Your task to perform on an android device: change the clock display to analog Image 0: 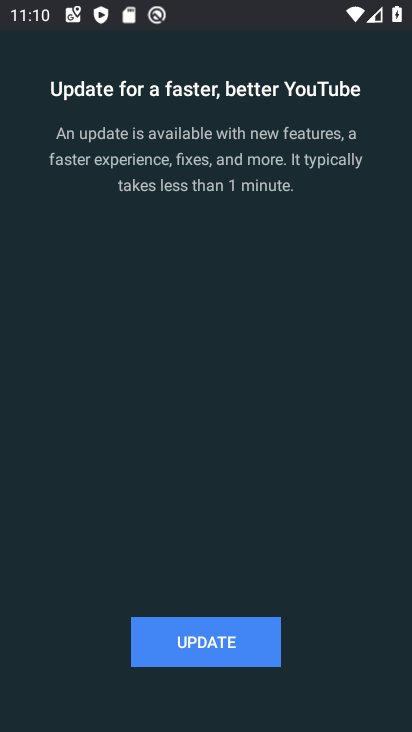
Step 0: press home button
Your task to perform on an android device: change the clock display to analog Image 1: 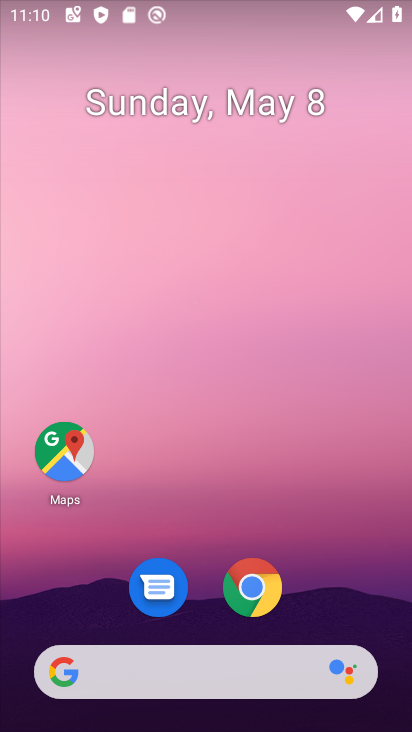
Step 1: drag from (344, 607) to (137, 242)
Your task to perform on an android device: change the clock display to analog Image 2: 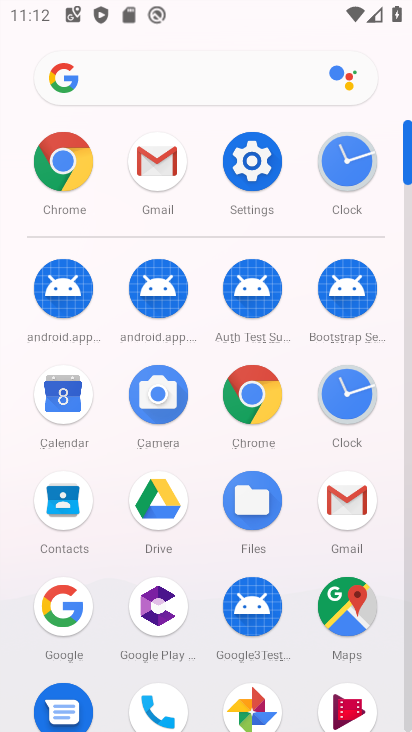
Step 2: click (344, 402)
Your task to perform on an android device: change the clock display to analog Image 3: 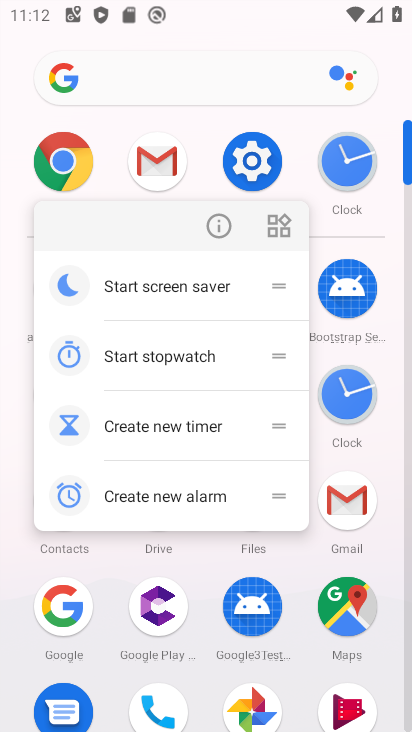
Step 3: click (363, 408)
Your task to perform on an android device: change the clock display to analog Image 4: 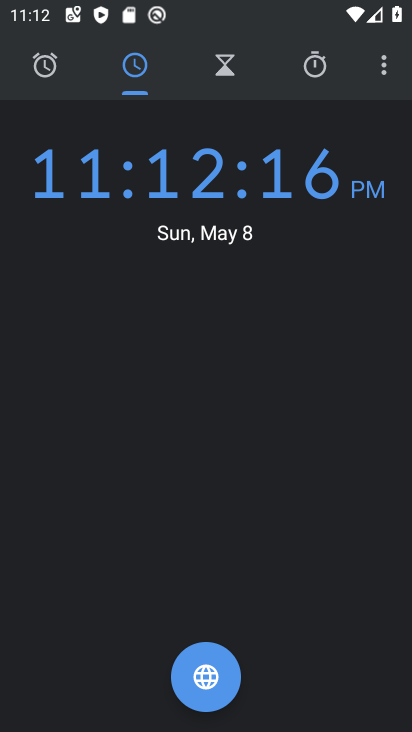
Step 4: click (335, 389)
Your task to perform on an android device: change the clock display to analog Image 5: 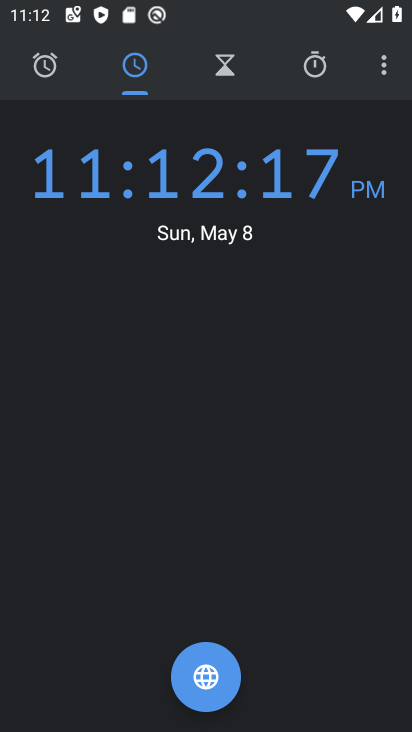
Step 5: click (336, 382)
Your task to perform on an android device: change the clock display to analog Image 6: 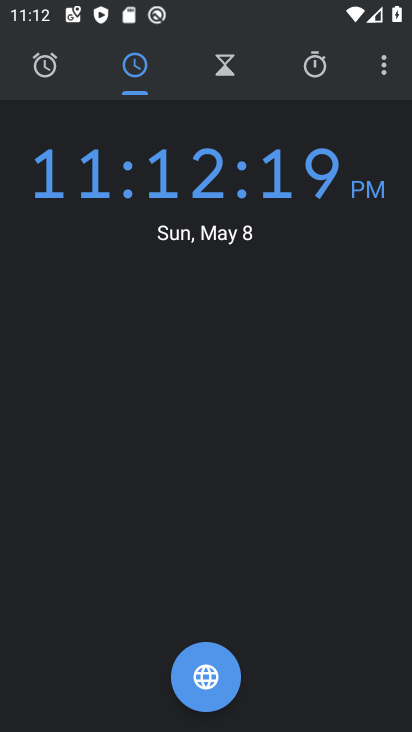
Step 6: click (356, 394)
Your task to perform on an android device: change the clock display to analog Image 7: 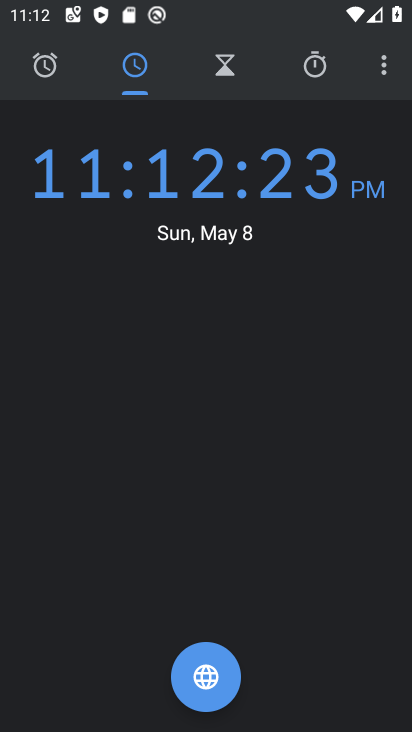
Step 7: click (332, 396)
Your task to perform on an android device: change the clock display to analog Image 8: 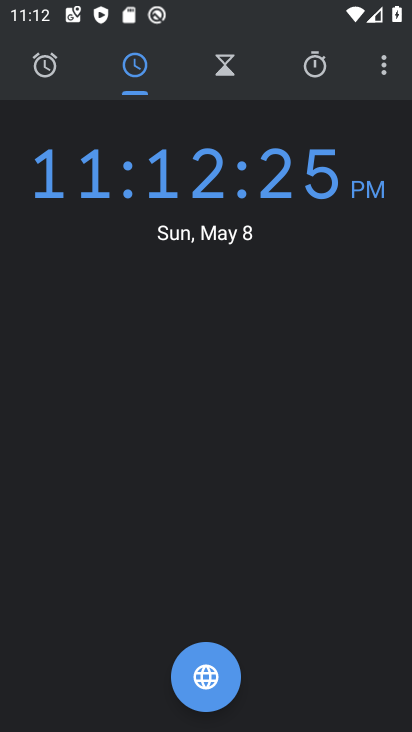
Step 8: click (339, 388)
Your task to perform on an android device: change the clock display to analog Image 9: 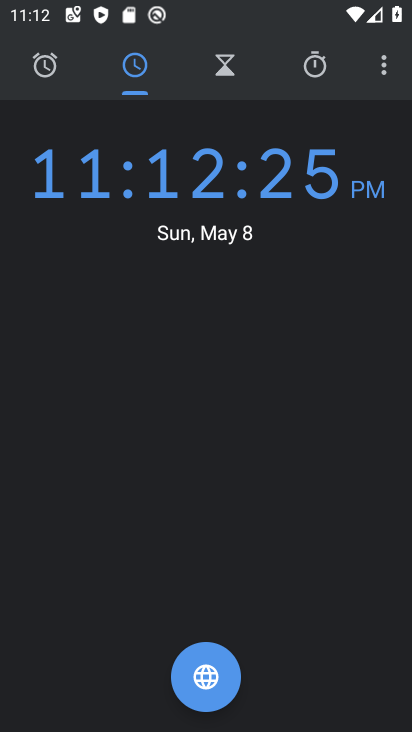
Step 9: click (339, 389)
Your task to perform on an android device: change the clock display to analog Image 10: 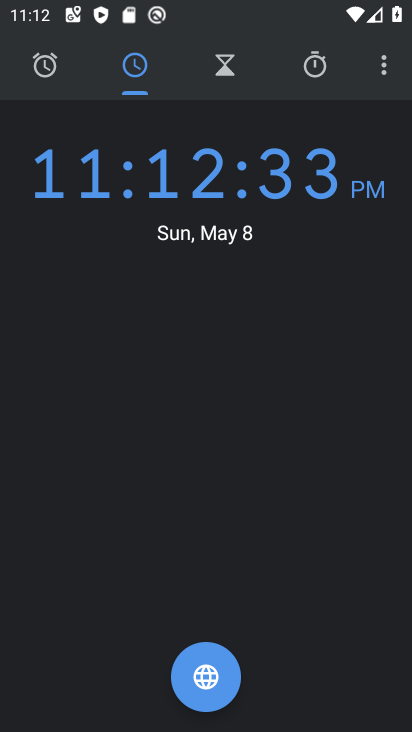
Step 10: click (380, 64)
Your task to perform on an android device: change the clock display to analog Image 11: 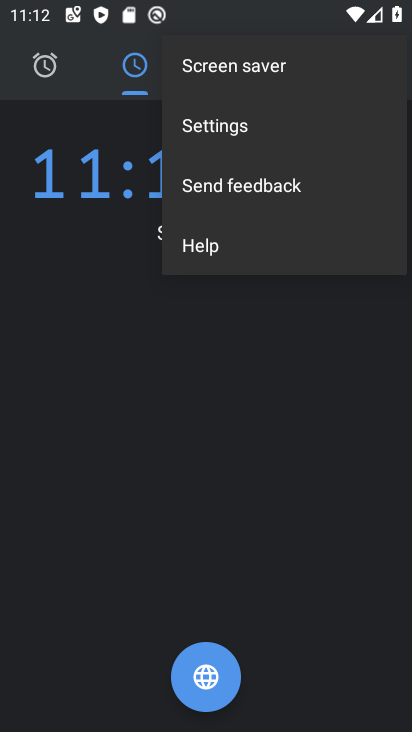
Step 11: click (376, 60)
Your task to perform on an android device: change the clock display to analog Image 12: 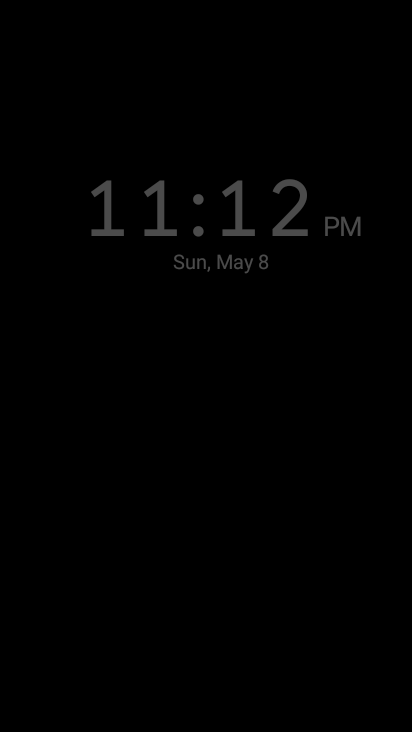
Step 12: click (385, 66)
Your task to perform on an android device: change the clock display to analog Image 13: 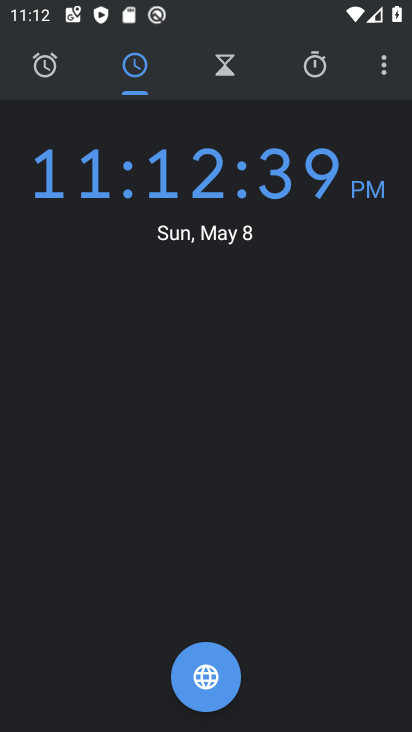
Step 13: click (217, 123)
Your task to perform on an android device: change the clock display to analog Image 14: 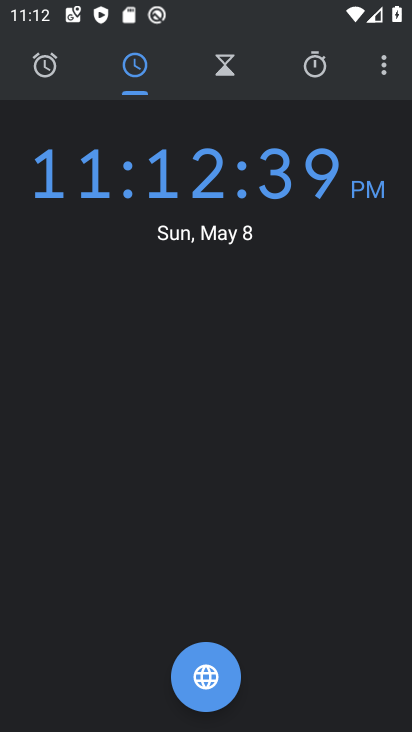
Step 14: click (211, 127)
Your task to perform on an android device: change the clock display to analog Image 15: 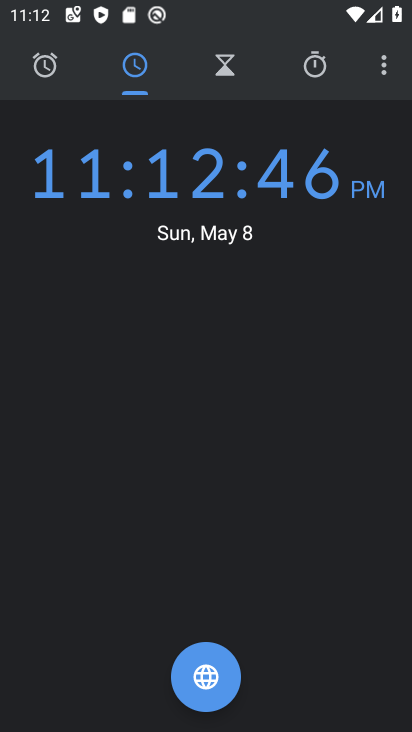
Step 15: click (390, 66)
Your task to perform on an android device: change the clock display to analog Image 16: 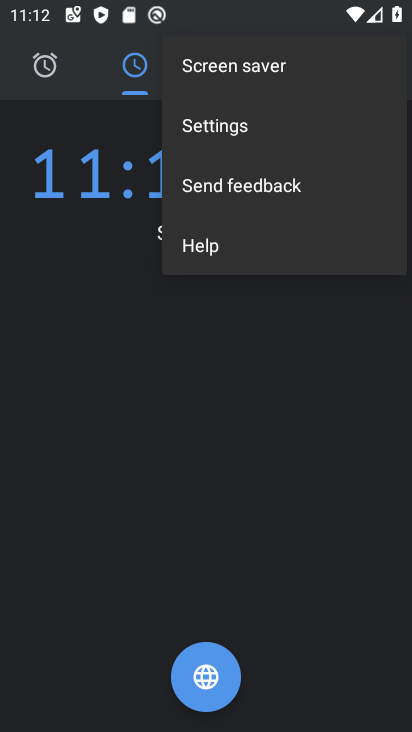
Step 16: drag from (382, 69) to (282, 409)
Your task to perform on an android device: change the clock display to analog Image 17: 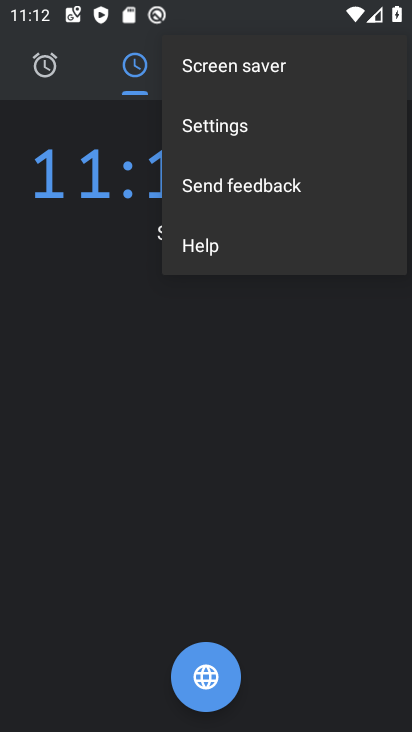
Step 17: click (225, 128)
Your task to perform on an android device: change the clock display to analog Image 18: 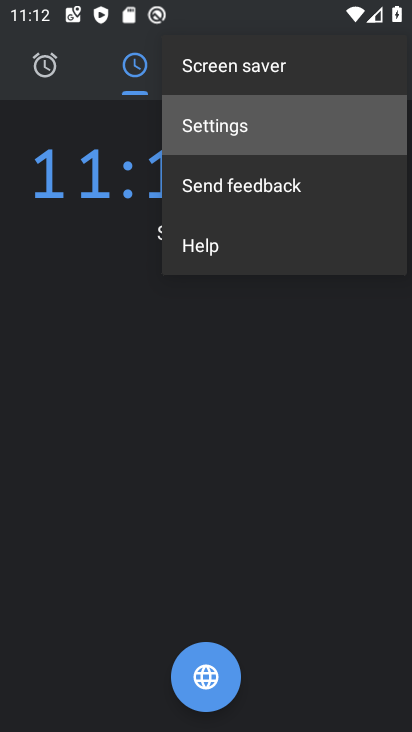
Step 18: click (208, 133)
Your task to perform on an android device: change the clock display to analog Image 19: 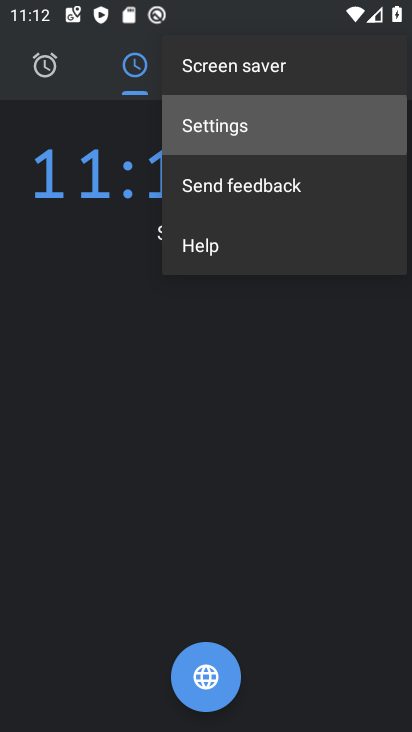
Step 19: click (222, 137)
Your task to perform on an android device: change the clock display to analog Image 20: 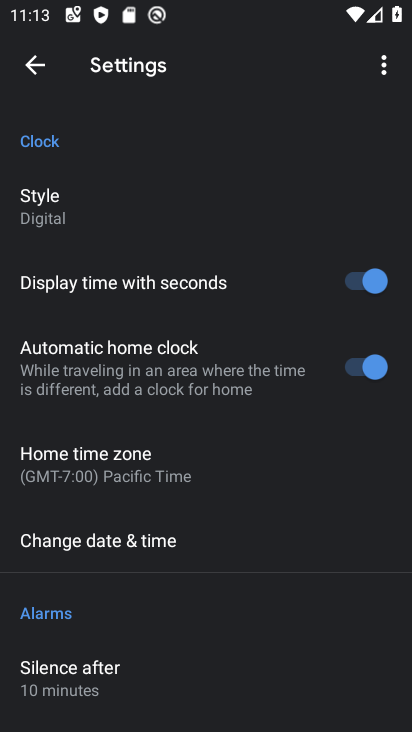
Step 20: click (108, 195)
Your task to perform on an android device: change the clock display to analog Image 21: 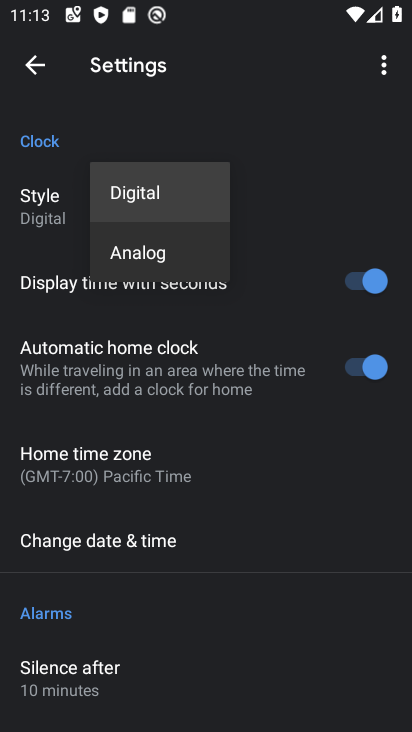
Step 21: click (132, 256)
Your task to perform on an android device: change the clock display to analog Image 22: 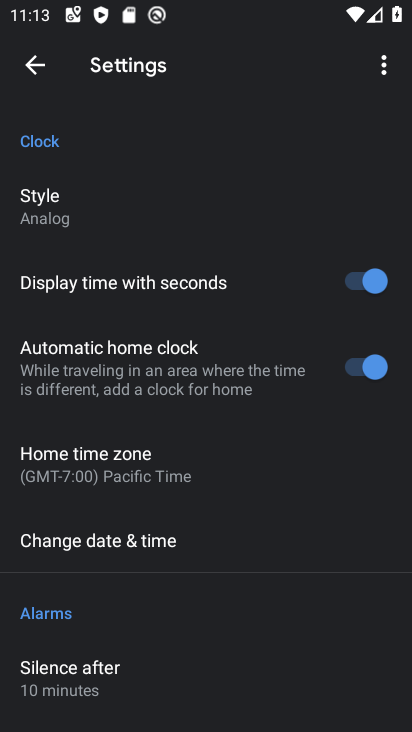
Step 22: task complete